Your task to perform on an android device: Search for razer blade on ebay.com, select the first entry, and add it to the cart. Image 0: 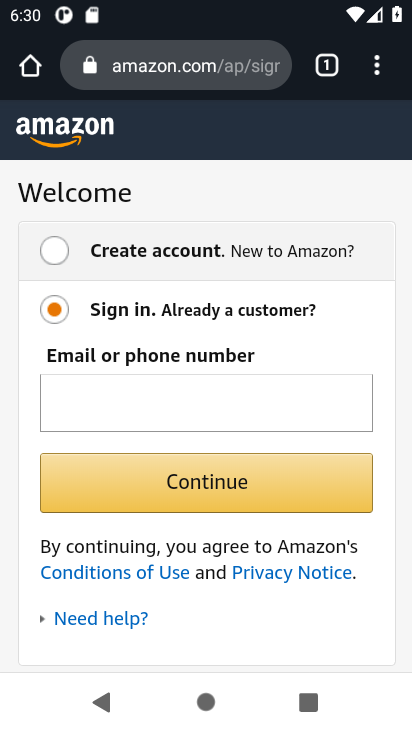
Step 0: click (167, 60)
Your task to perform on an android device: Search for razer blade on ebay.com, select the first entry, and add it to the cart. Image 1: 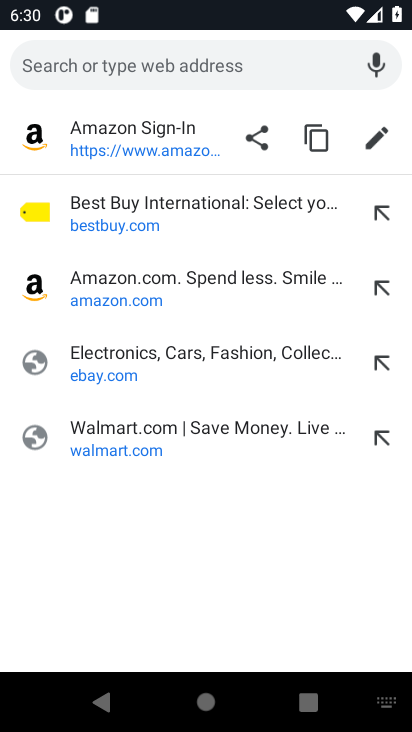
Step 1: click (147, 361)
Your task to perform on an android device: Search for razer blade on ebay.com, select the first entry, and add it to the cart. Image 2: 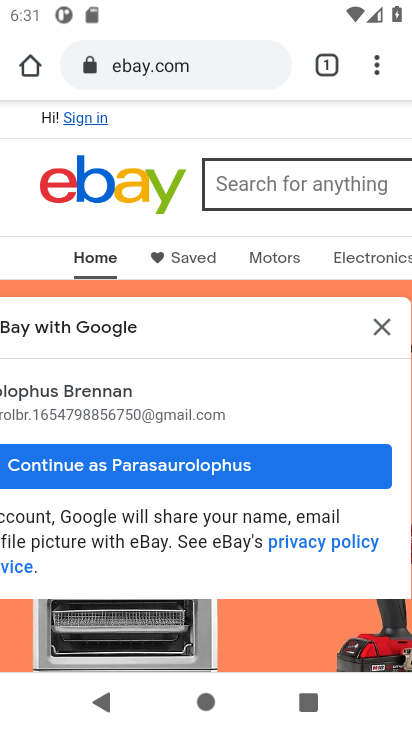
Step 2: click (385, 322)
Your task to perform on an android device: Search for razer blade on ebay.com, select the first entry, and add it to the cart. Image 3: 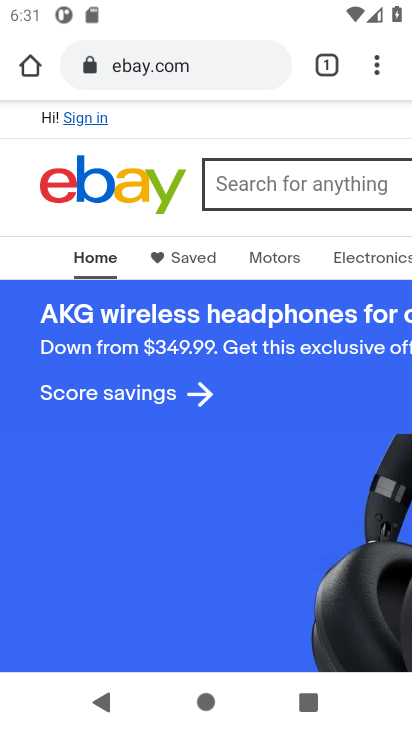
Step 3: click (265, 181)
Your task to perform on an android device: Search for razer blade on ebay.com, select the first entry, and add it to the cart. Image 4: 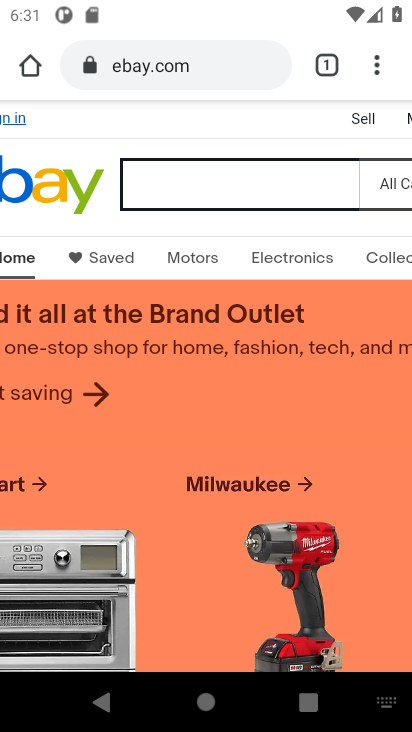
Step 4: click (205, 179)
Your task to perform on an android device: Search for razer blade on ebay.com, select the first entry, and add it to the cart. Image 5: 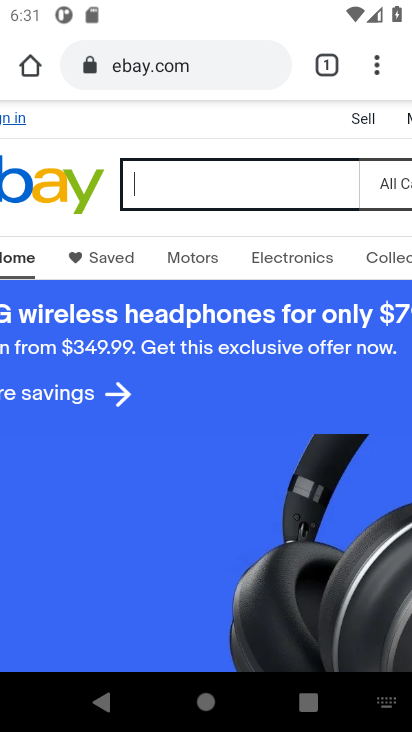
Step 5: type "razer blade "
Your task to perform on an android device: Search for razer blade on ebay.com, select the first entry, and add it to the cart. Image 6: 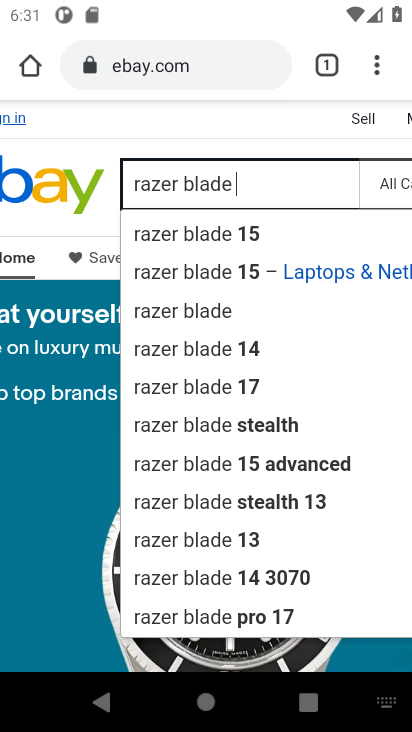
Step 6: click (201, 310)
Your task to perform on an android device: Search for razer blade on ebay.com, select the first entry, and add it to the cart. Image 7: 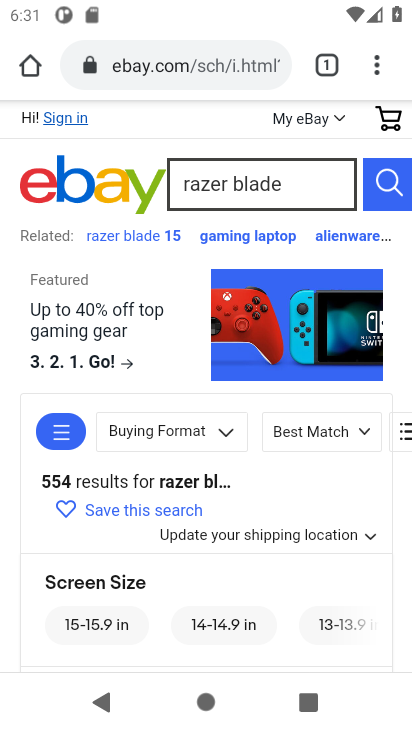
Step 7: drag from (222, 508) to (234, 109)
Your task to perform on an android device: Search for razer blade on ebay.com, select the first entry, and add it to the cart. Image 8: 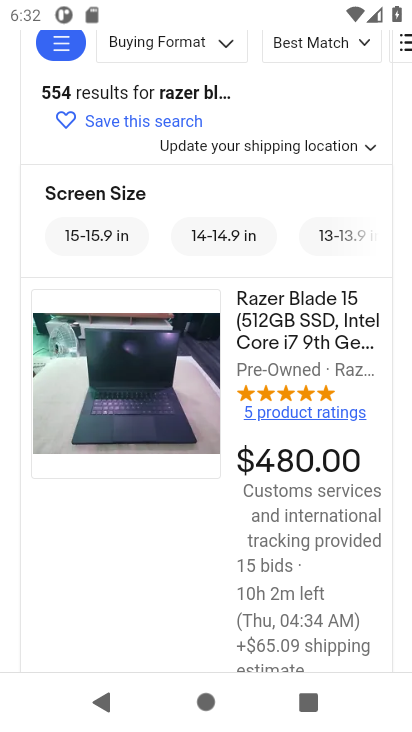
Step 8: drag from (205, 599) to (240, 149)
Your task to perform on an android device: Search for razer blade on ebay.com, select the first entry, and add it to the cart. Image 9: 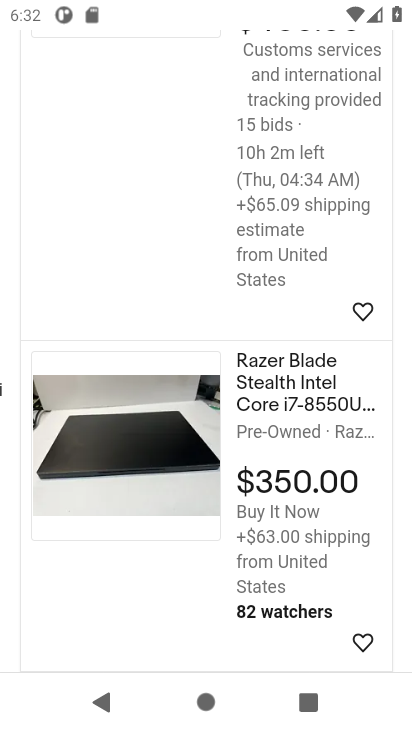
Step 9: drag from (193, 270) to (212, 623)
Your task to perform on an android device: Search for razer blade on ebay.com, select the first entry, and add it to the cart. Image 10: 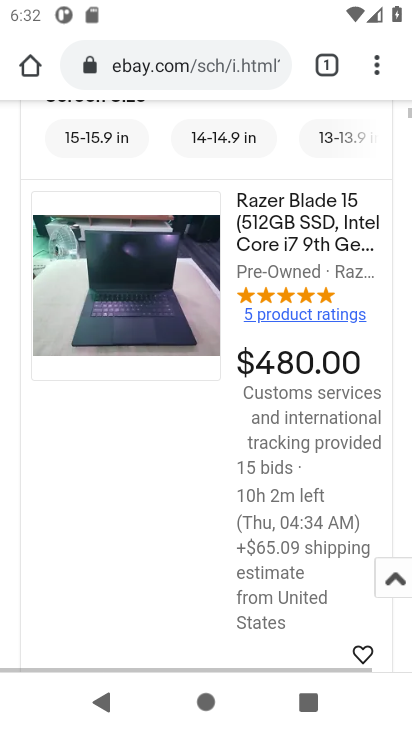
Step 10: click (190, 389)
Your task to perform on an android device: Search for razer blade on ebay.com, select the first entry, and add it to the cart. Image 11: 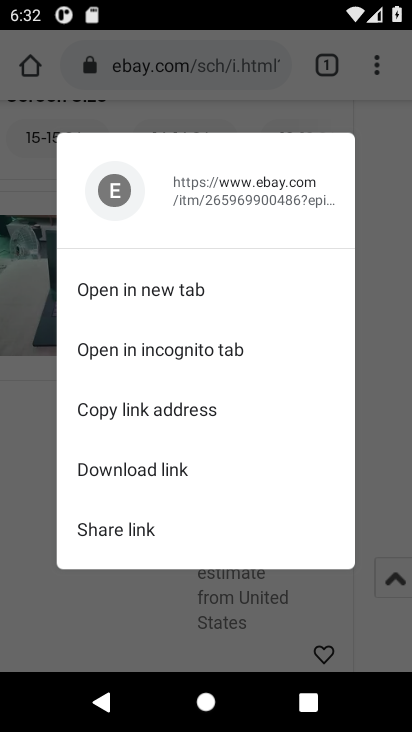
Step 11: click (22, 441)
Your task to perform on an android device: Search for razer blade on ebay.com, select the first entry, and add it to the cart. Image 12: 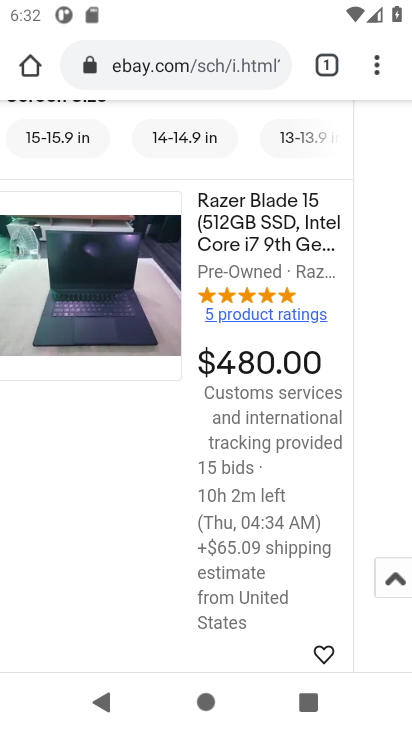
Step 12: click (270, 210)
Your task to perform on an android device: Search for razer blade on ebay.com, select the first entry, and add it to the cart. Image 13: 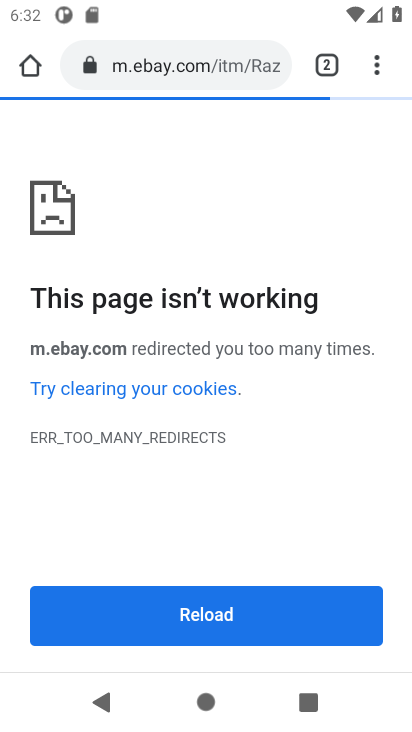
Step 13: press back button
Your task to perform on an android device: Search for razer blade on ebay.com, select the first entry, and add it to the cart. Image 14: 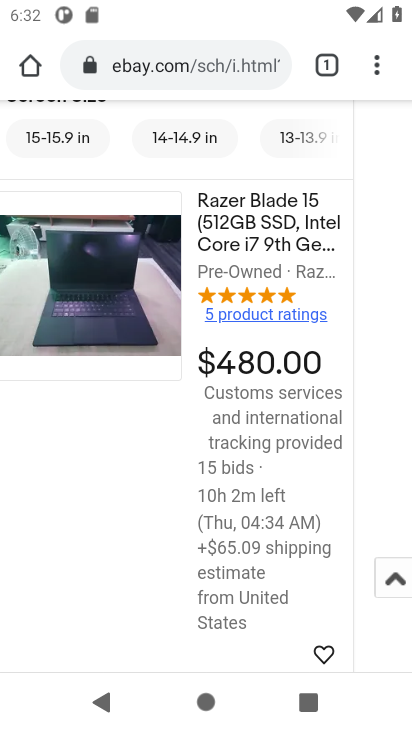
Step 14: drag from (169, 517) to (155, 112)
Your task to perform on an android device: Search for razer blade on ebay.com, select the first entry, and add it to the cart. Image 15: 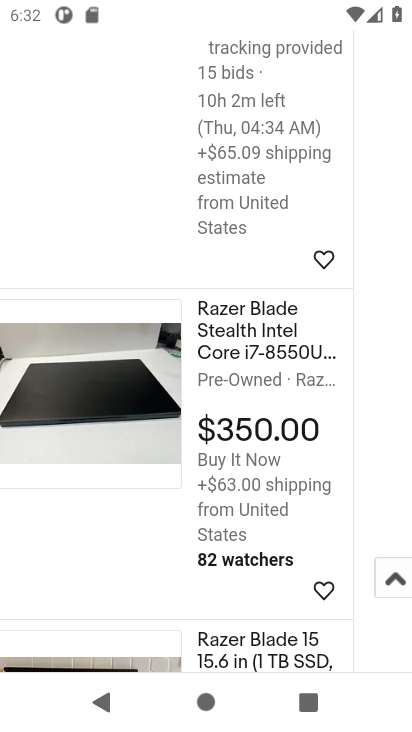
Step 15: click (230, 334)
Your task to perform on an android device: Search for razer blade on ebay.com, select the first entry, and add it to the cart. Image 16: 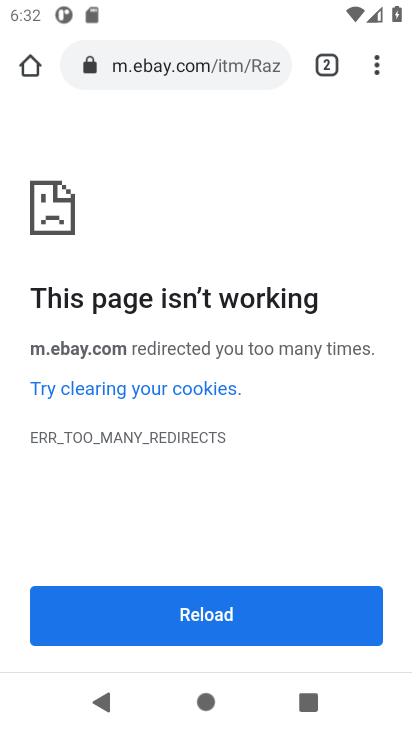
Step 16: press back button
Your task to perform on an android device: Search for razer blade on ebay.com, select the first entry, and add it to the cart. Image 17: 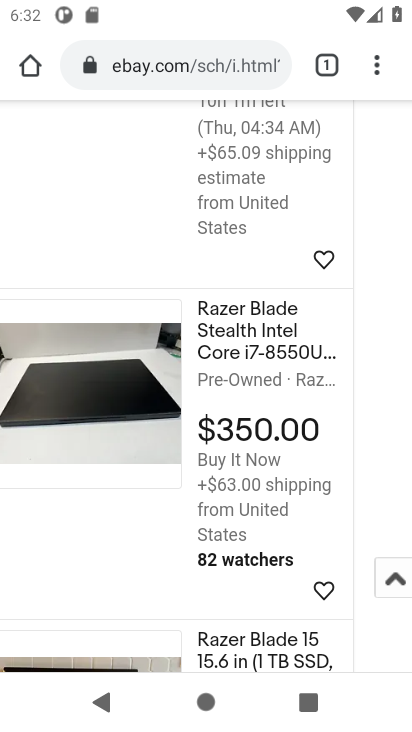
Step 17: drag from (180, 598) to (189, 147)
Your task to perform on an android device: Search for razer blade on ebay.com, select the first entry, and add it to the cart. Image 18: 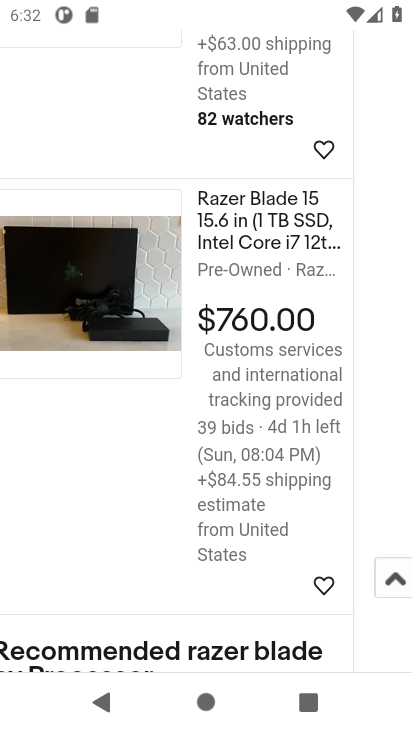
Step 18: click (245, 230)
Your task to perform on an android device: Search for razer blade on ebay.com, select the first entry, and add it to the cart. Image 19: 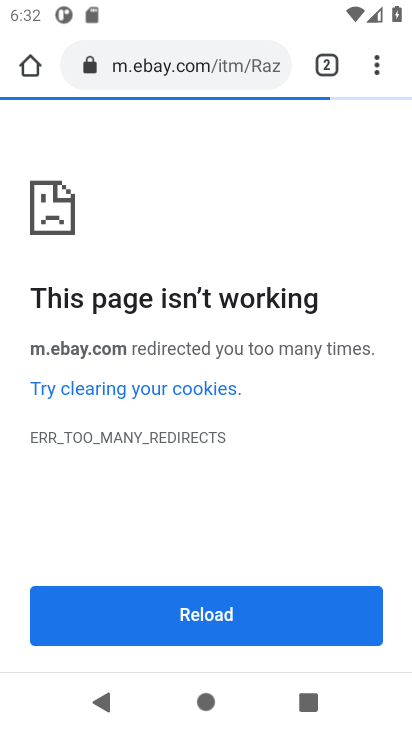
Step 19: task complete